Your task to perform on an android device: Go to sound settings Image 0: 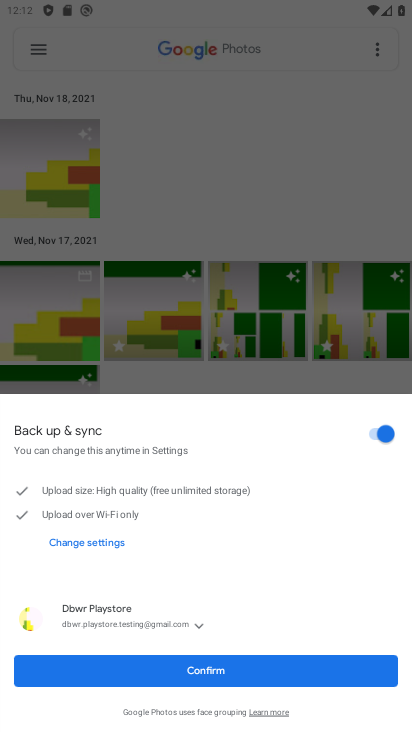
Step 0: press home button
Your task to perform on an android device: Go to sound settings Image 1: 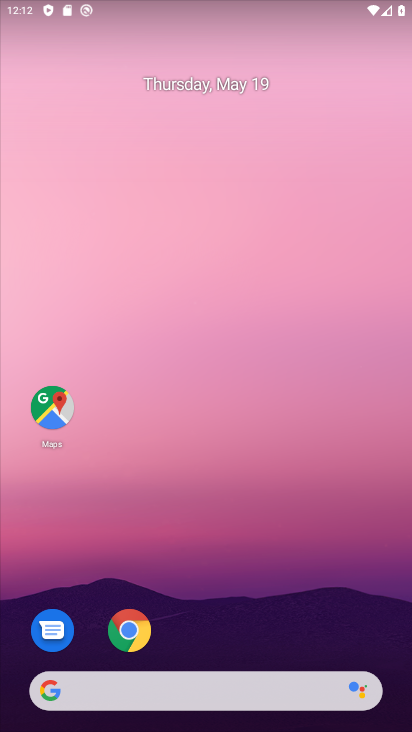
Step 1: drag from (271, 564) to (307, 302)
Your task to perform on an android device: Go to sound settings Image 2: 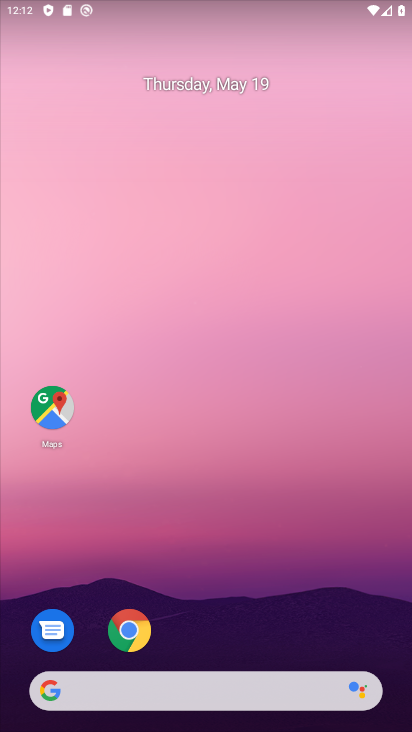
Step 2: drag from (207, 586) to (262, 233)
Your task to perform on an android device: Go to sound settings Image 3: 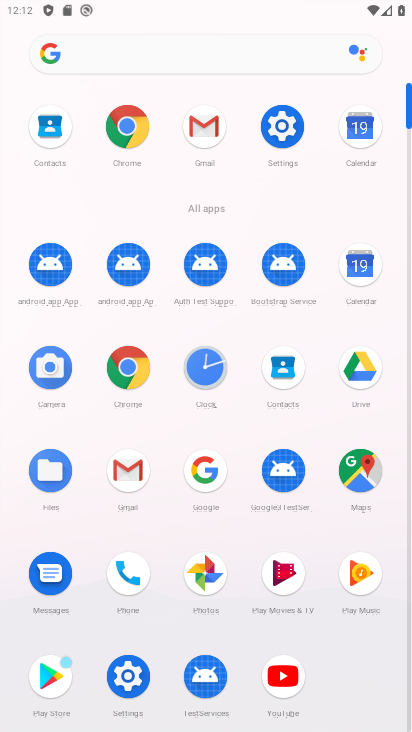
Step 3: click (287, 123)
Your task to perform on an android device: Go to sound settings Image 4: 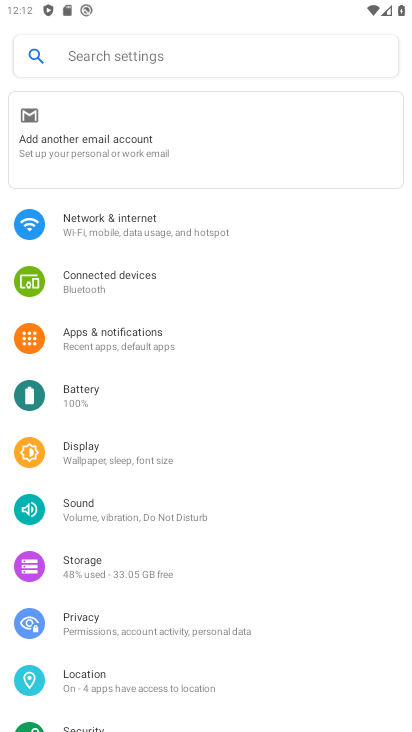
Step 4: click (122, 507)
Your task to perform on an android device: Go to sound settings Image 5: 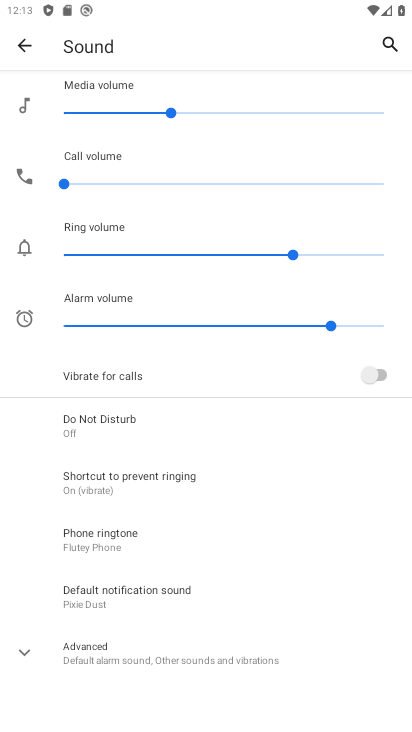
Step 5: task complete